Your task to perform on an android device: Find coffee shops on Maps Image 0: 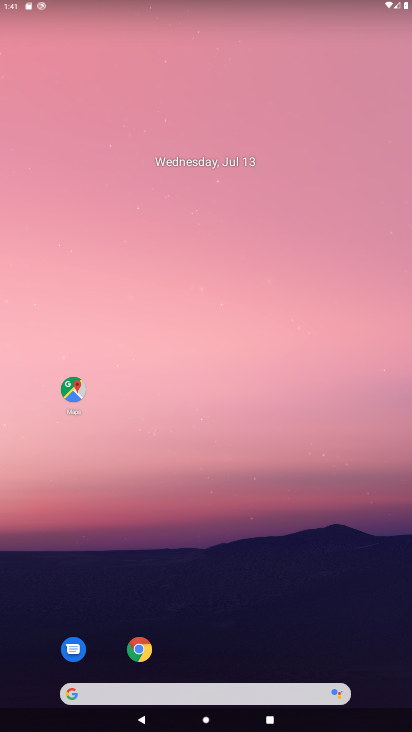
Step 0: press home button
Your task to perform on an android device: Find coffee shops on Maps Image 1: 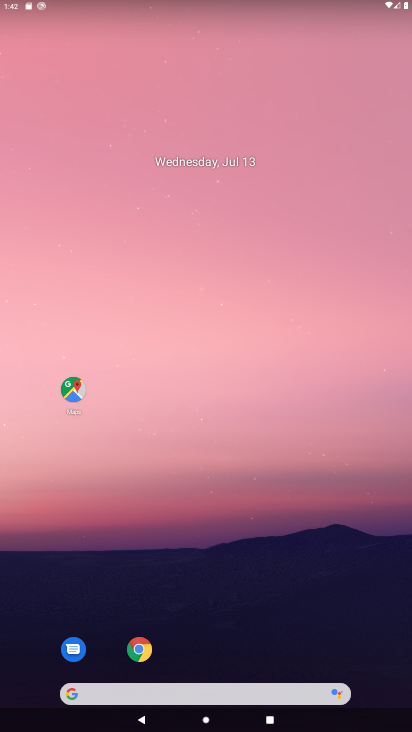
Step 1: drag from (245, 613) to (232, 1)
Your task to perform on an android device: Find coffee shops on Maps Image 2: 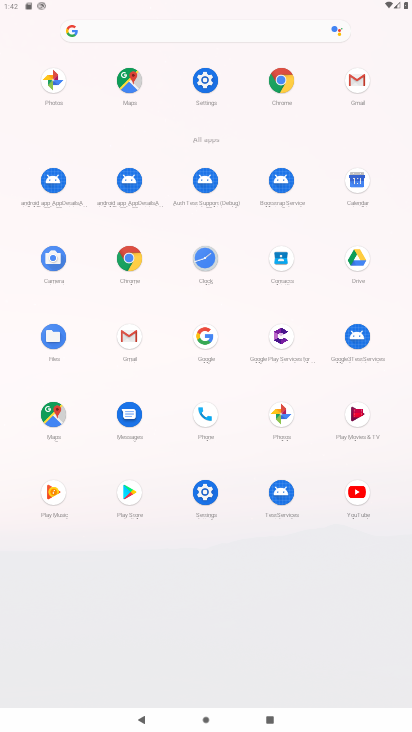
Step 2: click (48, 410)
Your task to perform on an android device: Find coffee shops on Maps Image 3: 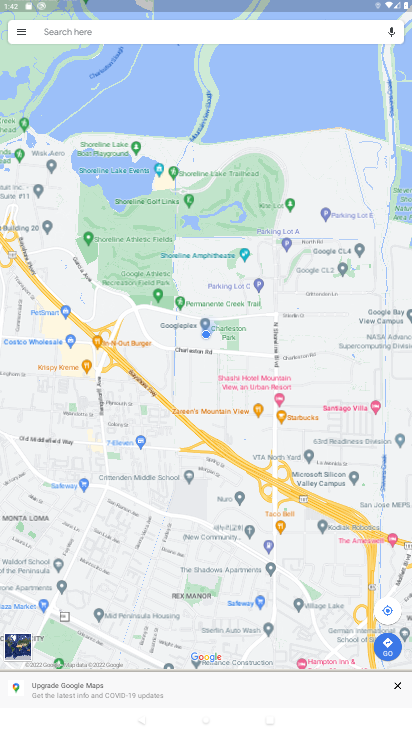
Step 3: click (65, 31)
Your task to perform on an android device: Find coffee shops on Maps Image 4: 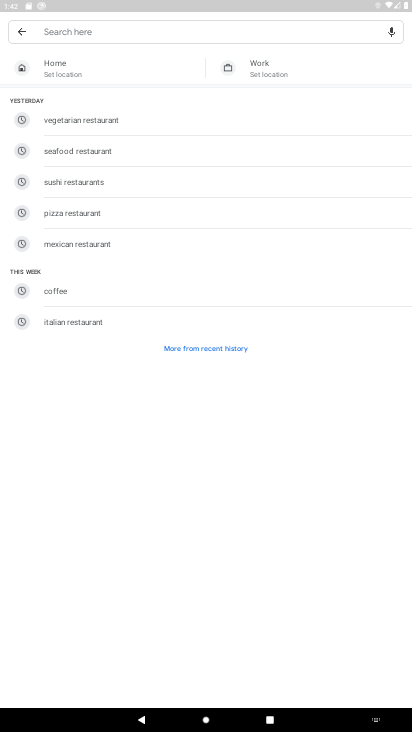
Step 4: type " coffee shops "
Your task to perform on an android device: Find coffee shops on Maps Image 5: 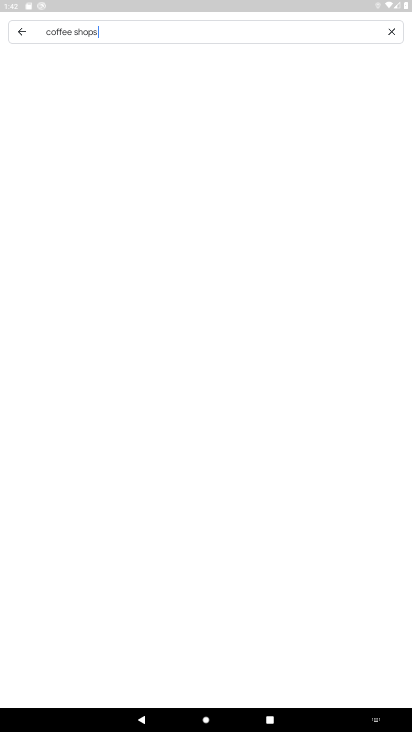
Step 5: type ""
Your task to perform on an android device: Find coffee shops on Maps Image 6: 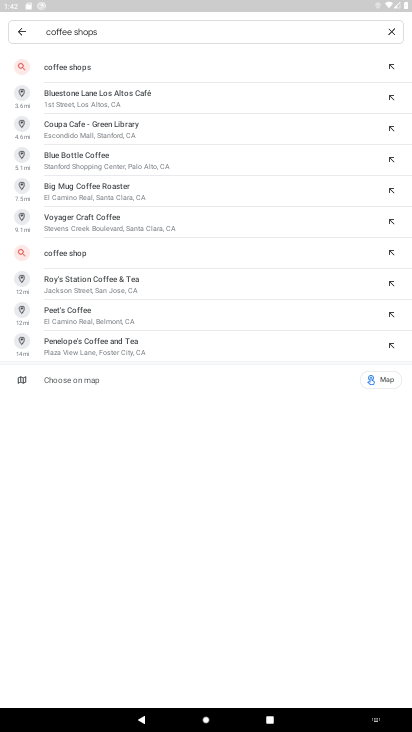
Step 6: click (88, 72)
Your task to perform on an android device: Find coffee shops on Maps Image 7: 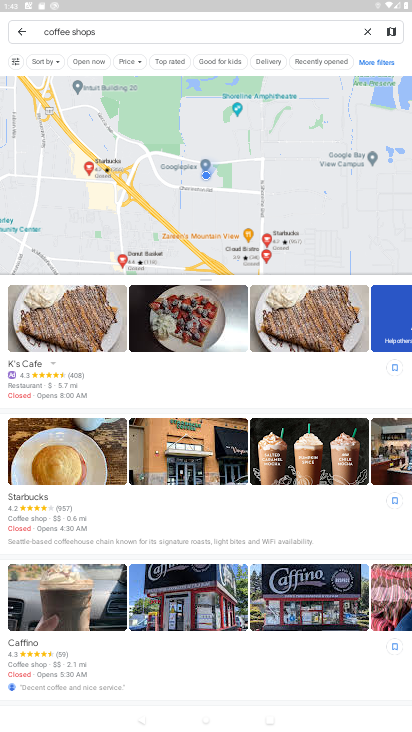
Step 7: task complete